Your task to perform on an android device: Do I have any events today? Image 0: 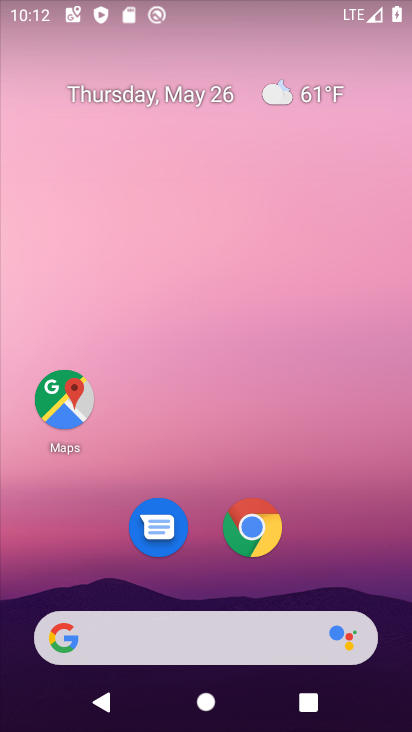
Step 0: drag from (242, 465) to (255, 92)
Your task to perform on an android device: Do I have any events today? Image 1: 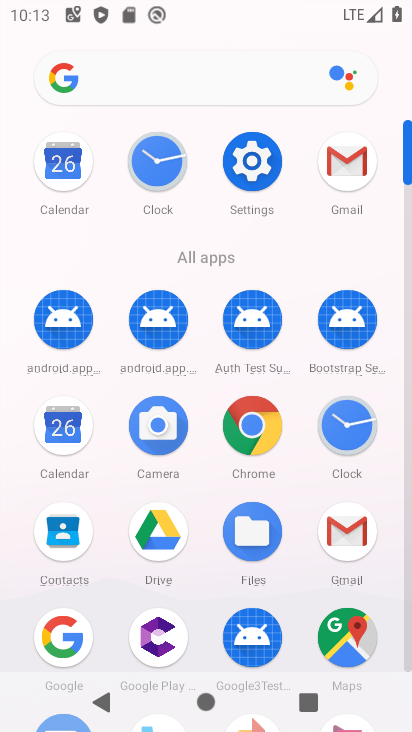
Step 1: click (71, 425)
Your task to perform on an android device: Do I have any events today? Image 2: 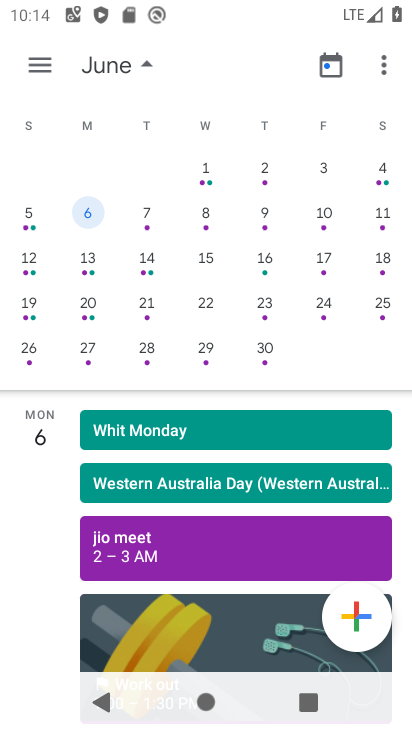
Step 2: drag from (21, 283) to (305, 253)
Your task to perform on an android device: Do I have any events today? Image 3: 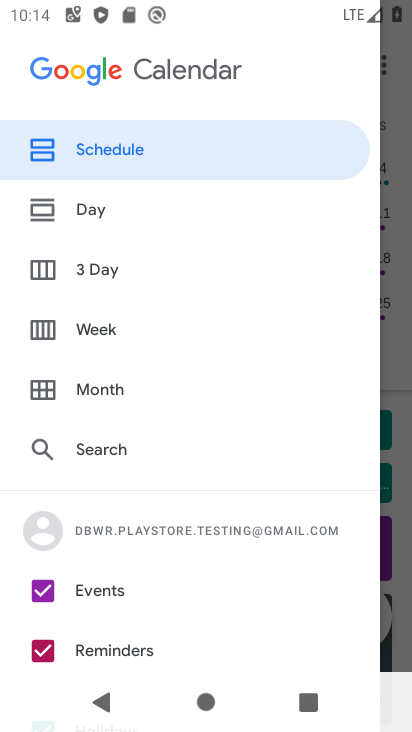
Step 3: click (397, 264)
Your task to perform on an android device: Do I have any events today? Image 4: 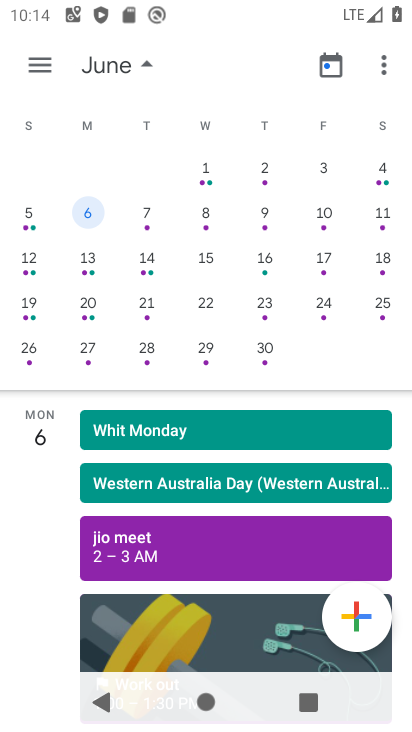
Step 4: drag from (67, 288) to (378, 274)
Your task to perform on an android device: Do I have any events today? Image 5: 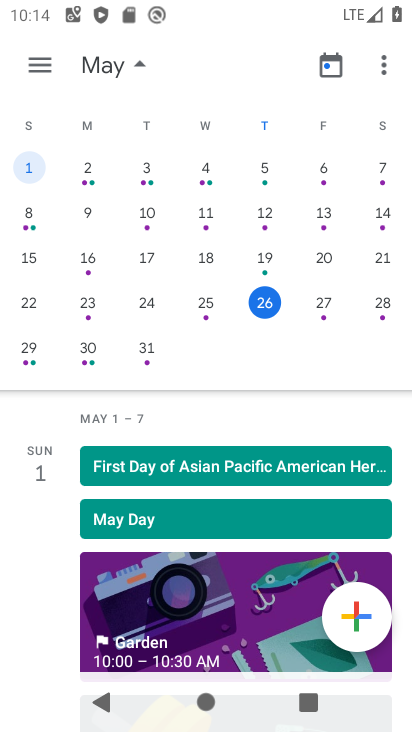
Step 5: click (258, 307)
Your task to perform on an android device: Do I have any events today? Image 6: 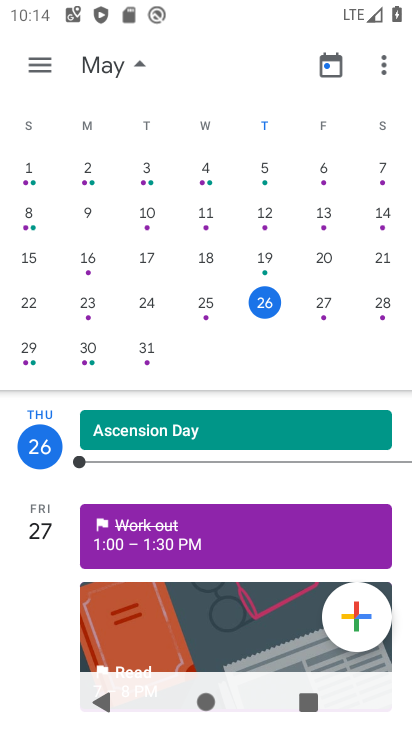
Step 6: drag from (170, 558) to (249, 205)
Your task to perform on an android device: Do I have any events today? Image 7: 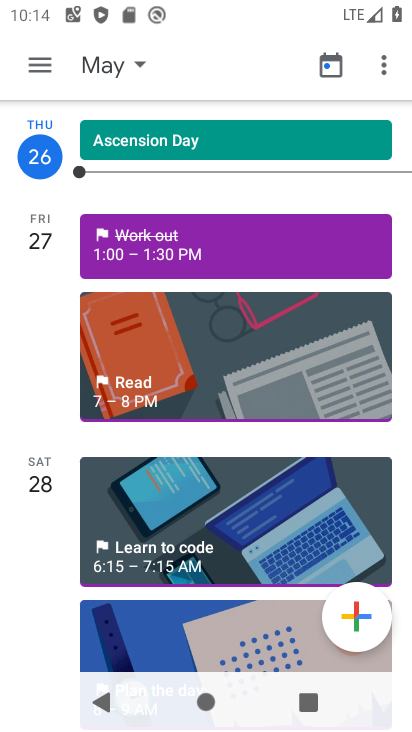
Step 7: click (136, 358)
Your task to perform on an android device: Do I have any events today? Image 8: 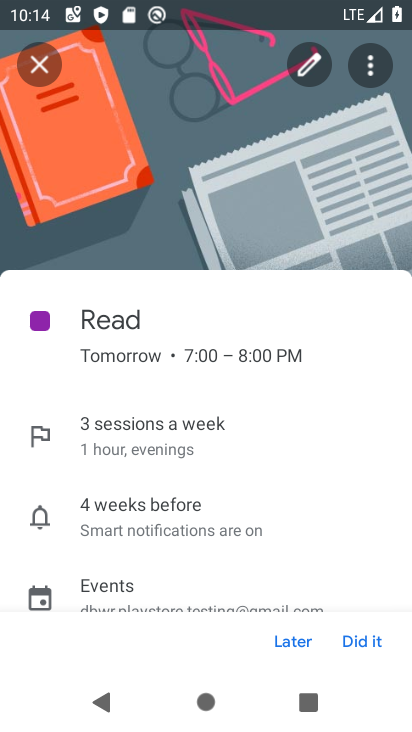
Step 8: task complete